Your task to perform on an android device: Open Yahoo.com Image 0: 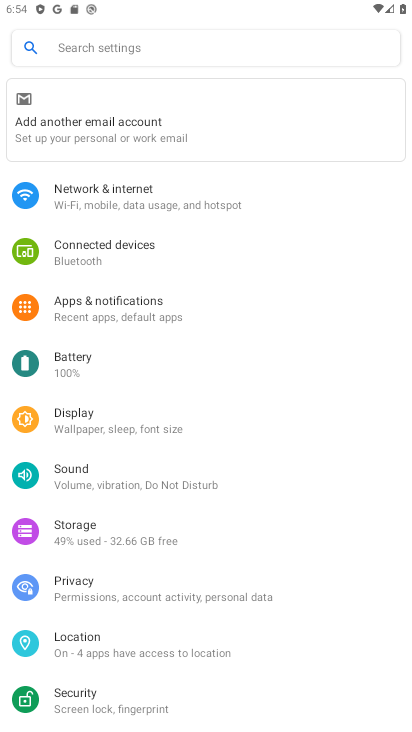
Step 0: press home button
Your task to perform on an android device: Open Yahoo.com Image 1: 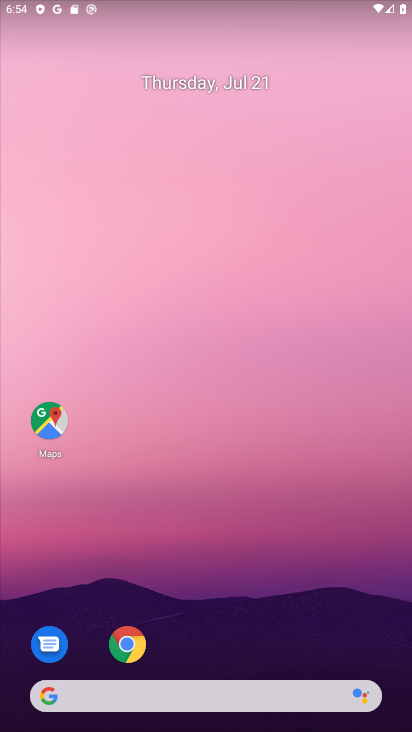
Step 1: click (123, 689)
Your task to perform on an android device: Open Yahoo.com Image 2: 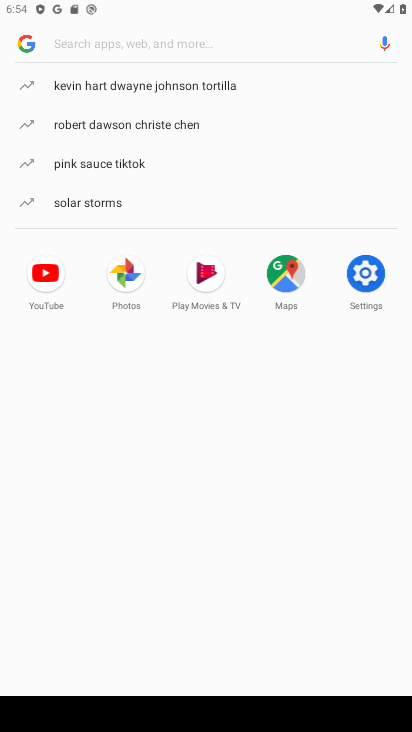
Step 2: type "Yahoo.com"
Your task to perform on an android device: Open Yahoo.com Image 3: 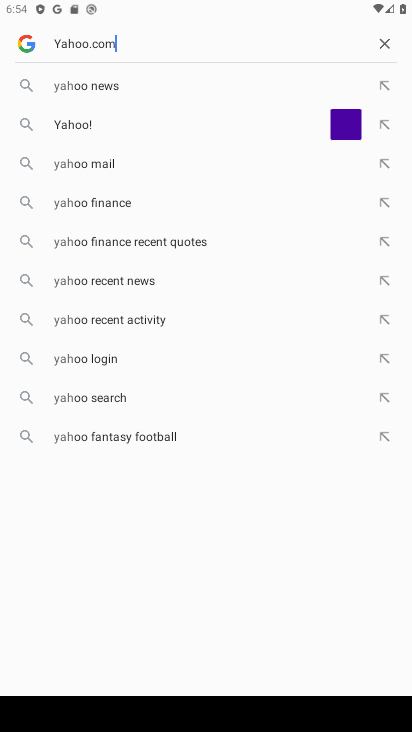
Step 3: press enter
Your task to perform on an android device: Open Yahoo.com Image 4: 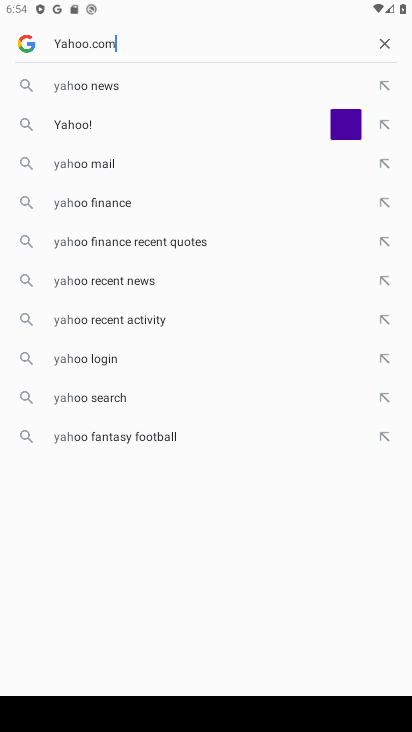
Step 4: type ""
Your task to perform on an android device: Open Yahoo.com Image 5: 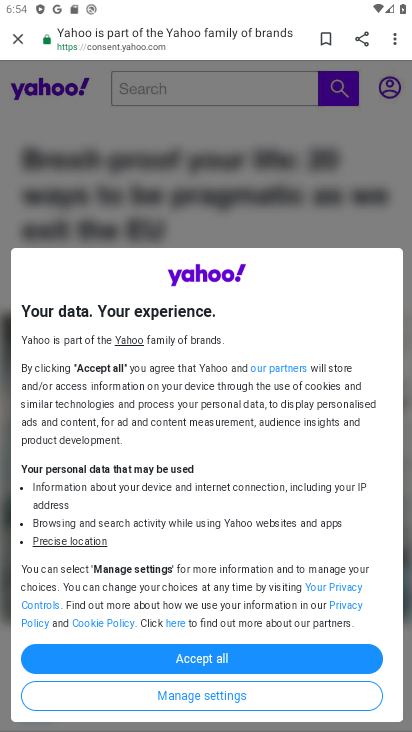
Step 5: task complete